Your task to perform on an android device: Go to settings Image 0: 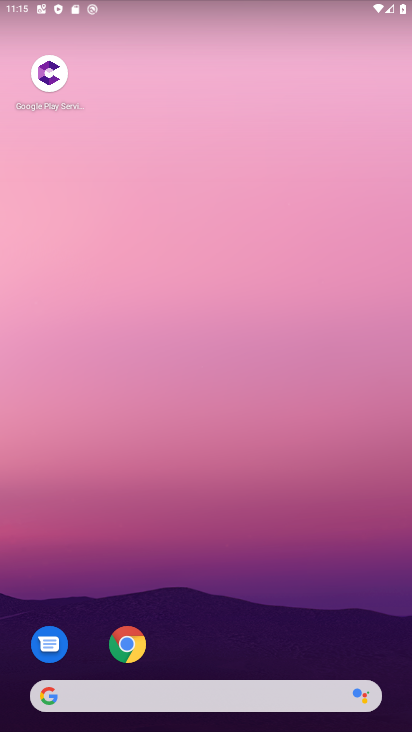
Step 0: drag from (203, 651) to (215, 263)
Your task to perform on an android device: Go to settings Image 1: 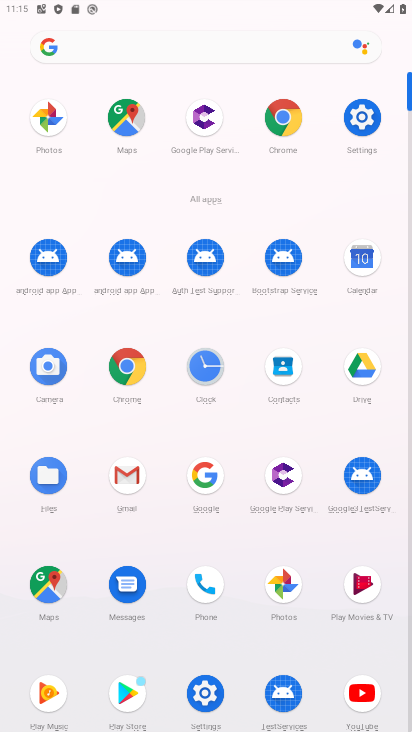
Step 1: click (365, 110)
Your task to perform on an android device: Go to settings Image 2: 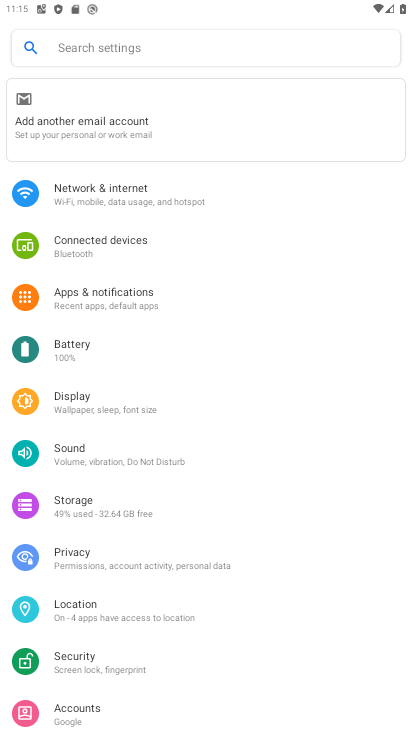
Step 2: task complete